Your task to perform on an android device: Install the Yahoo app Image 0: 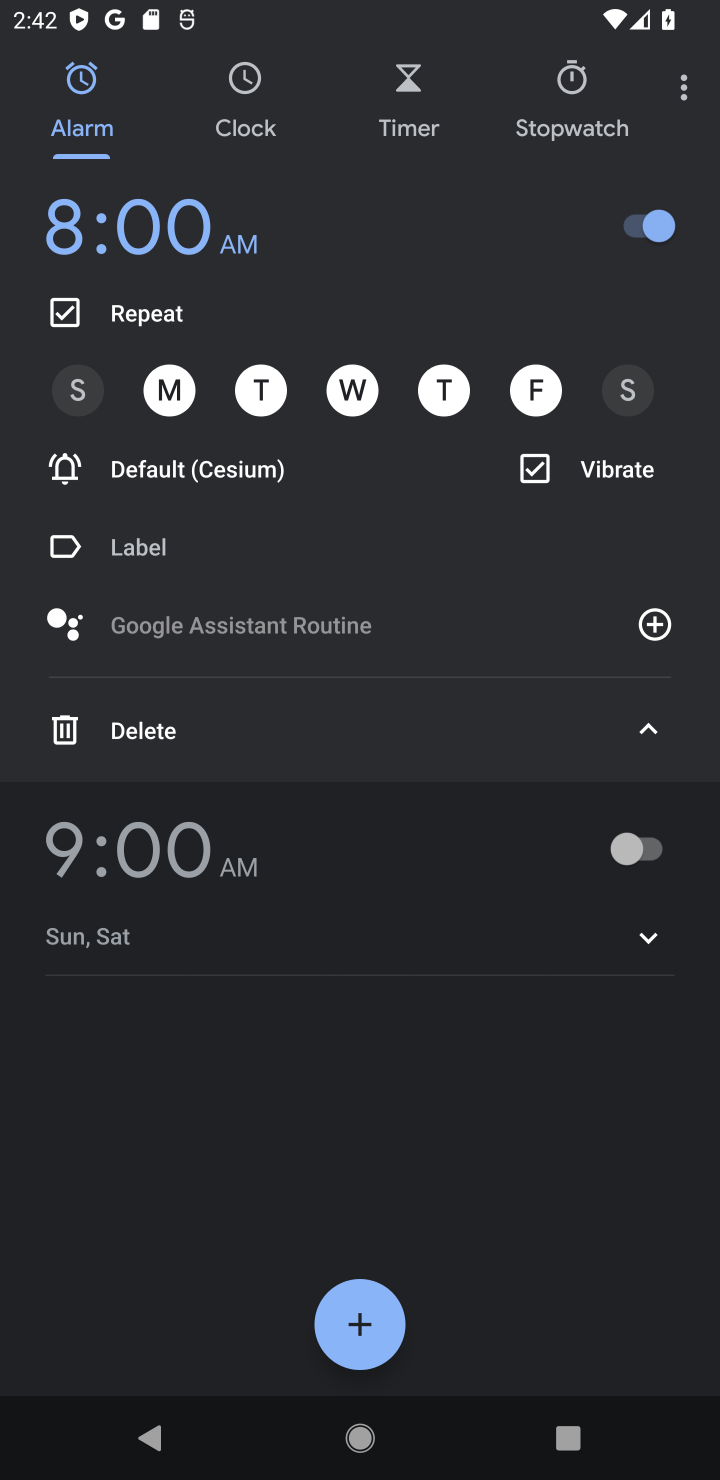
Step 0: press home button
Your task to perform on an android device: Install the Yahoo app Image 1: 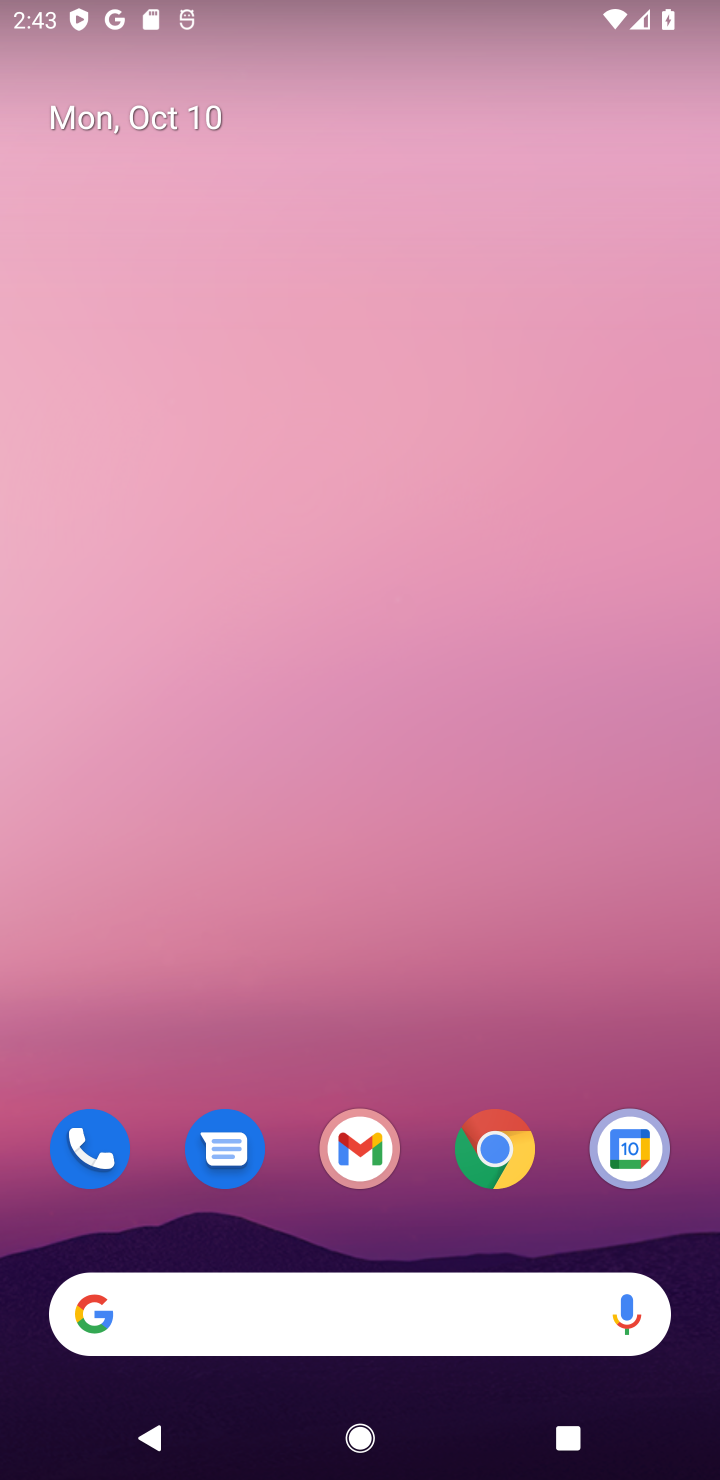
Step 1: drag from (427, 1229) to (379, 39)
Your task to perform on an android device: Install the Yahoo app Image 2: 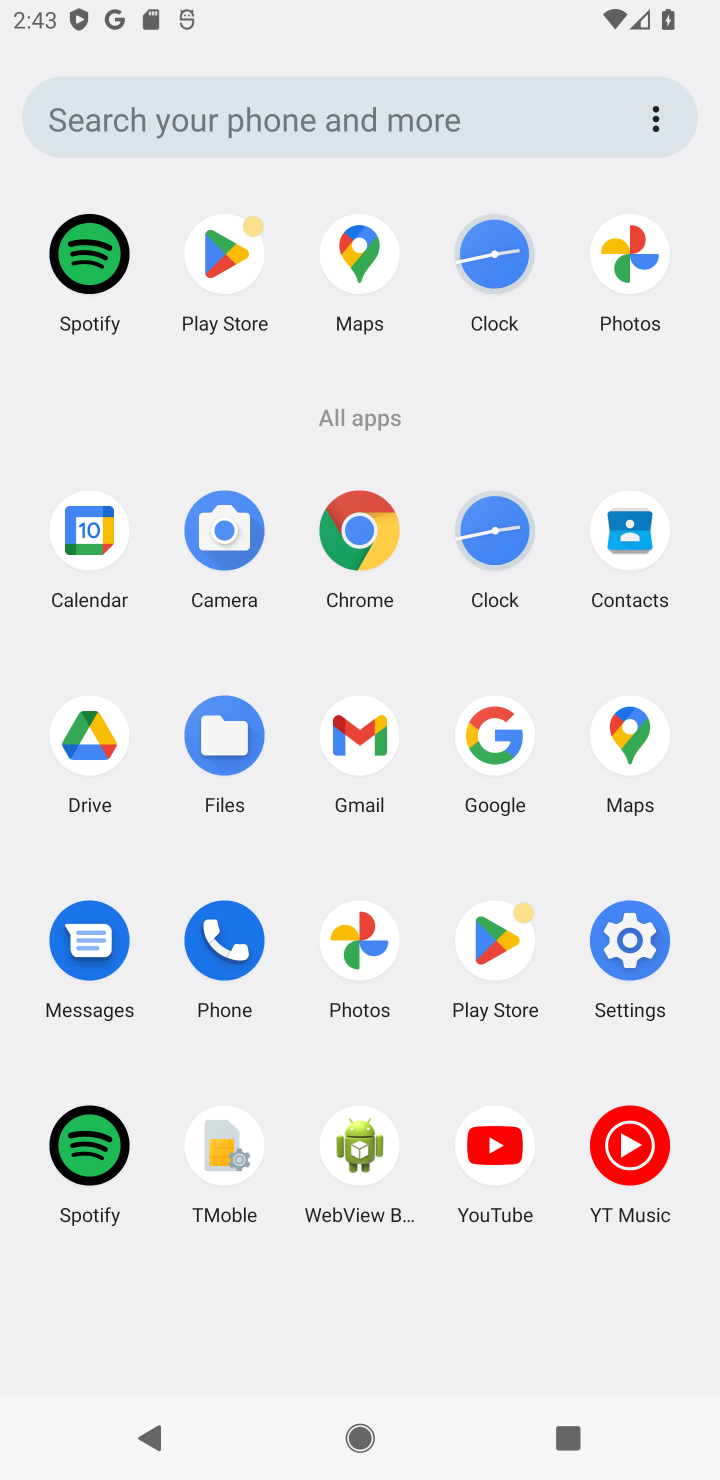
Step 2: click (195, 268)
Your task to perform on an android device: Install the Yahoo app Image 3: 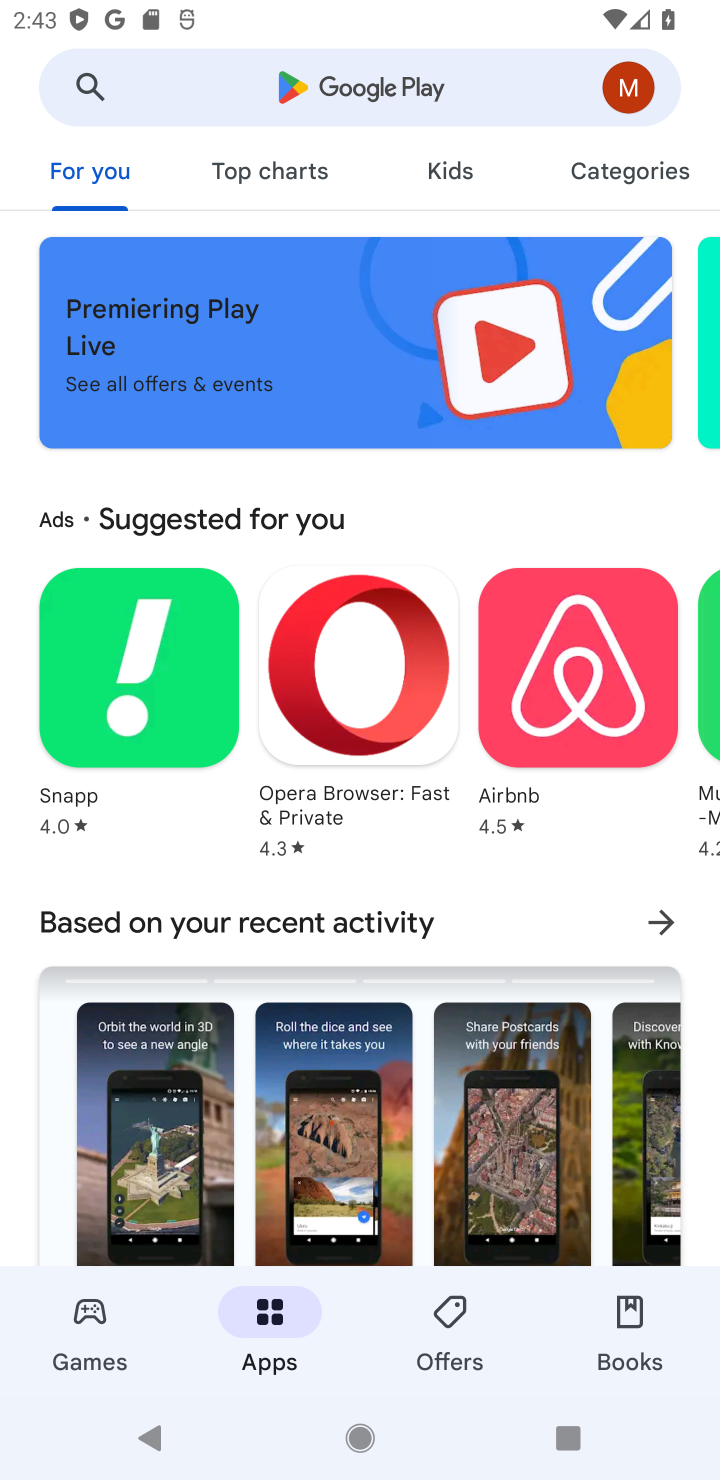
Step 3: click (374, 92)
Your task to perform on an android device: Install the Yahoo app Image 4: 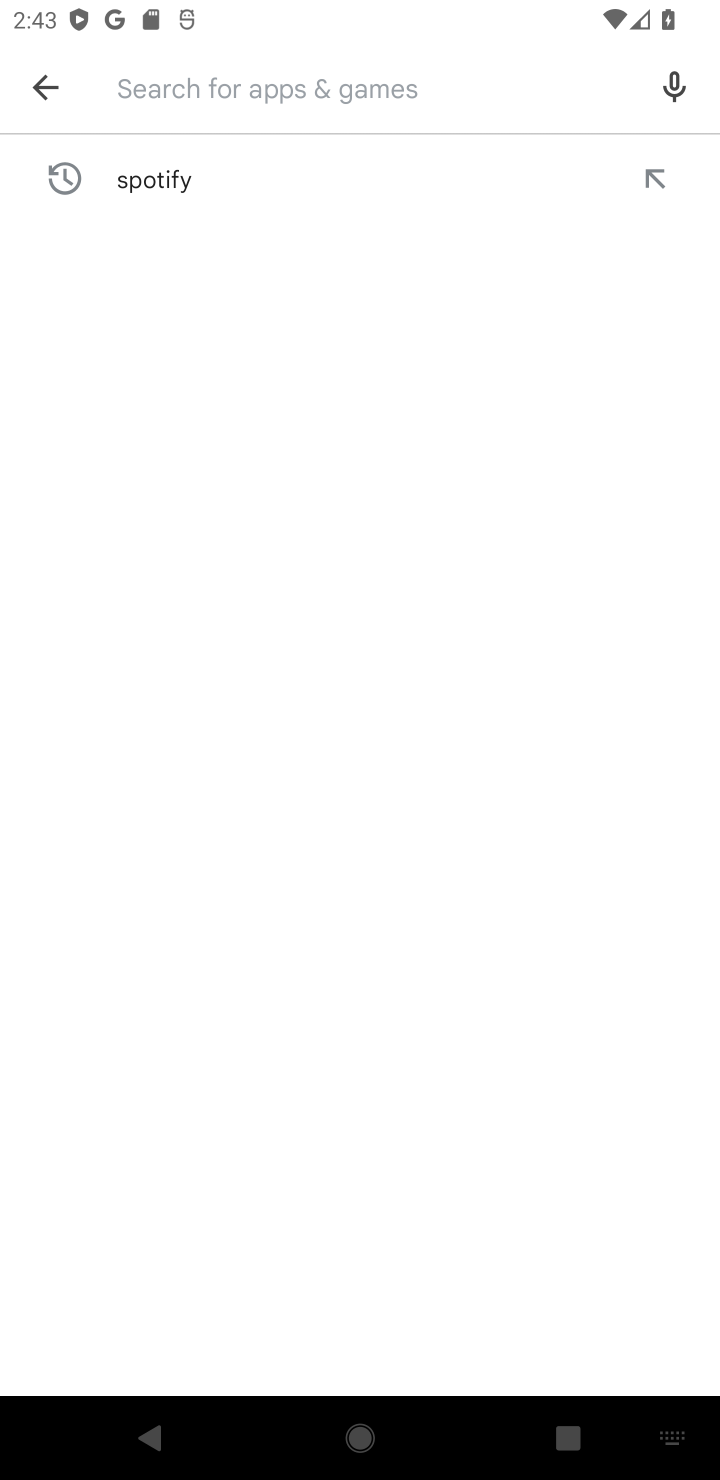
Step 4: type "yahoo"
Your task to perform on an android device: Install the Yahoo app Image 5: 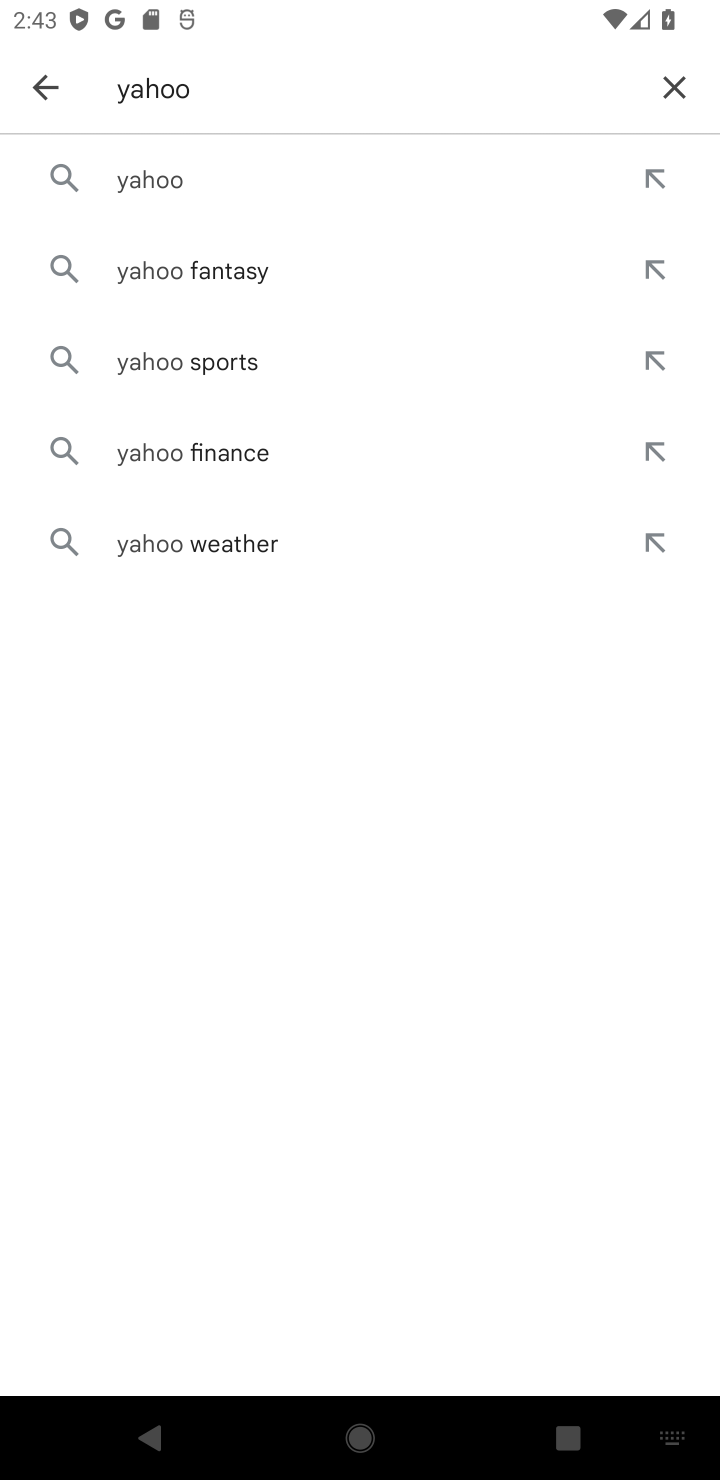
Step 5: click (165, 168)
Your task to perform on an android device: Install the Yahoo app Image 6: 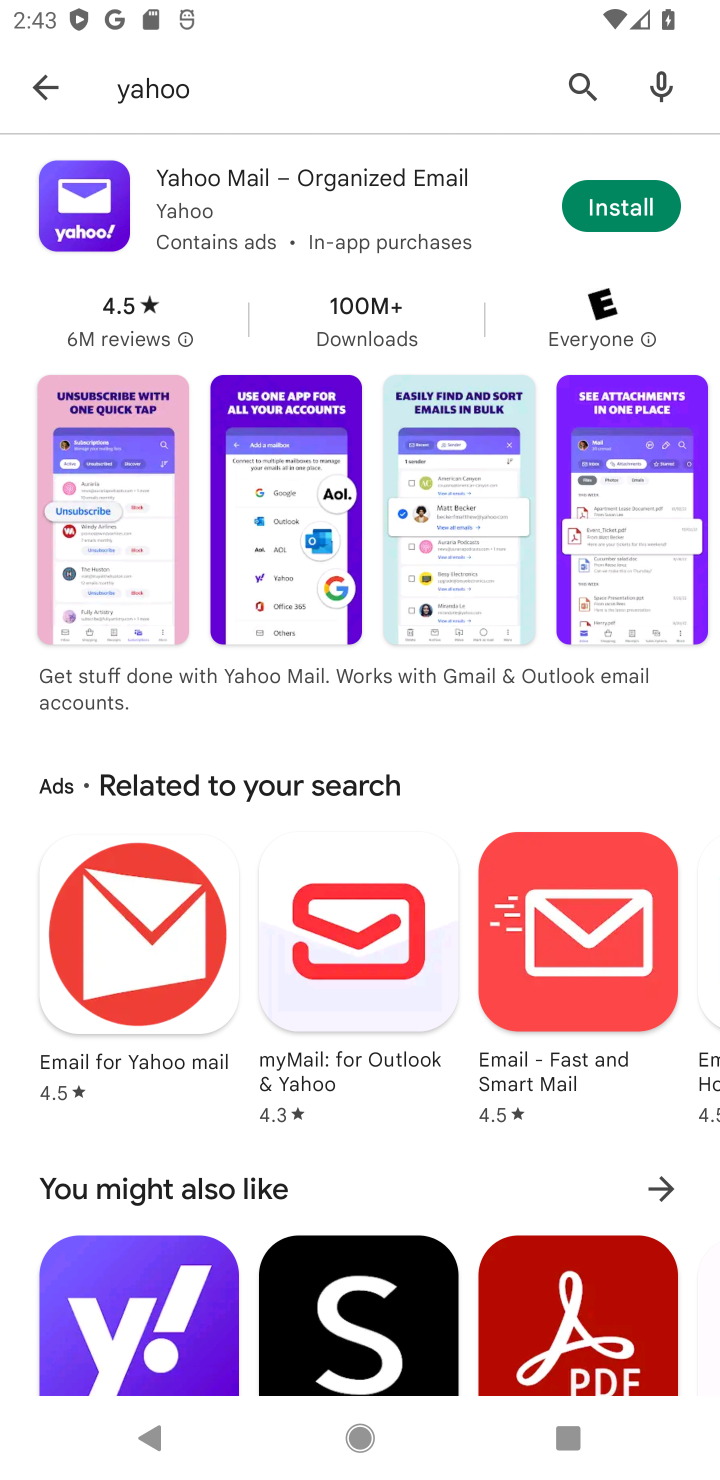
Step 6: click (605, 219)
Your task to perform on an android device: Install the Yahoo app Image 7: 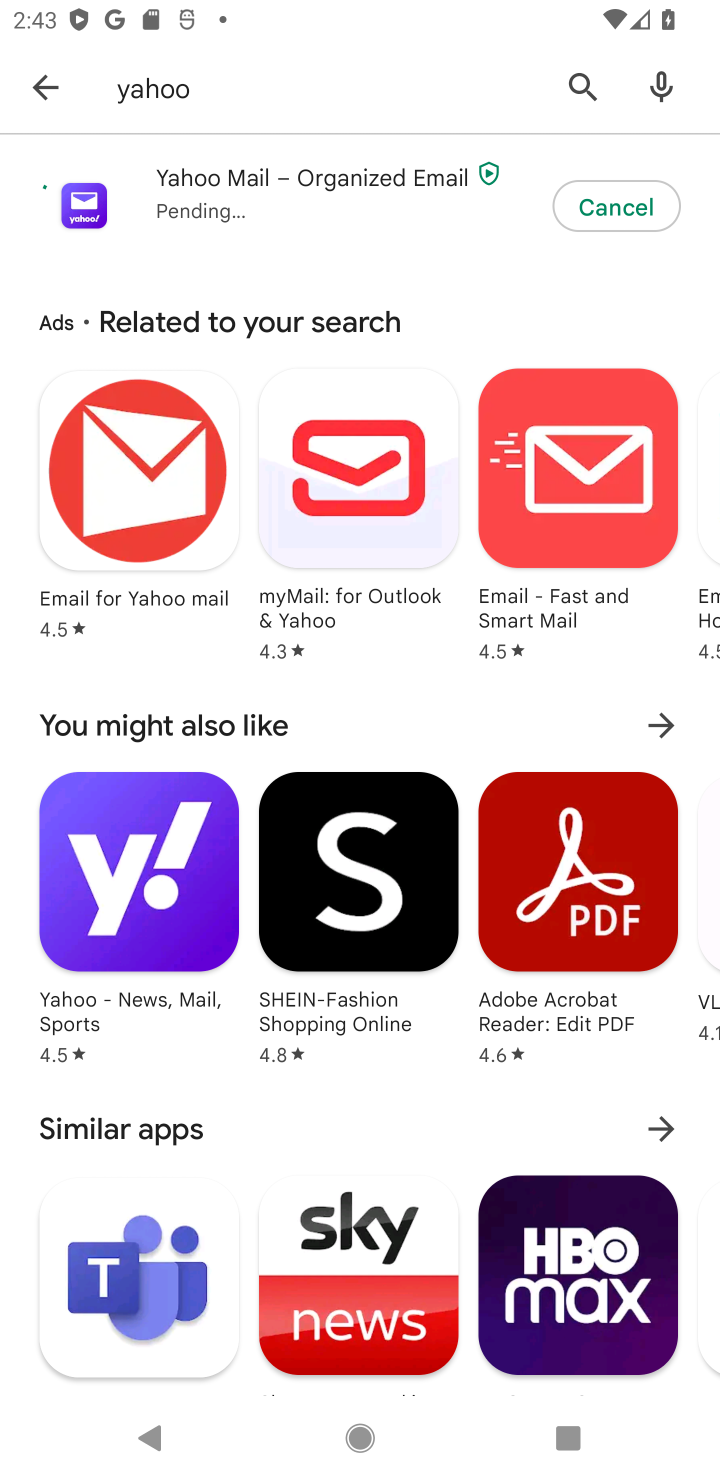
Step 7: task complete